Your task to perform on an android device: open sync settings in chrome Image 0: 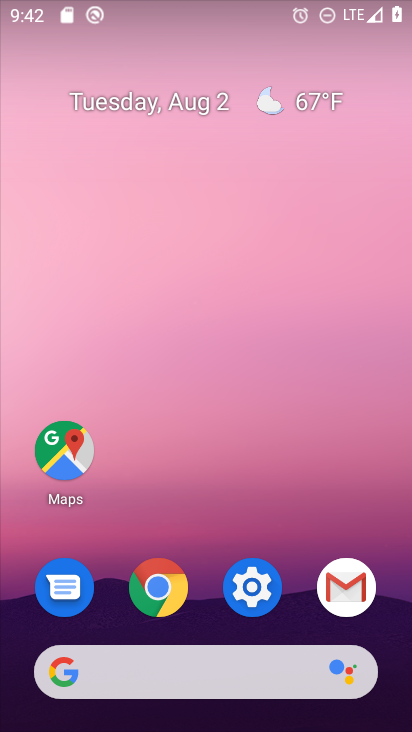
Step 0: press home button
Your task to perform on an android device: open sync settings in chrome Image 1: 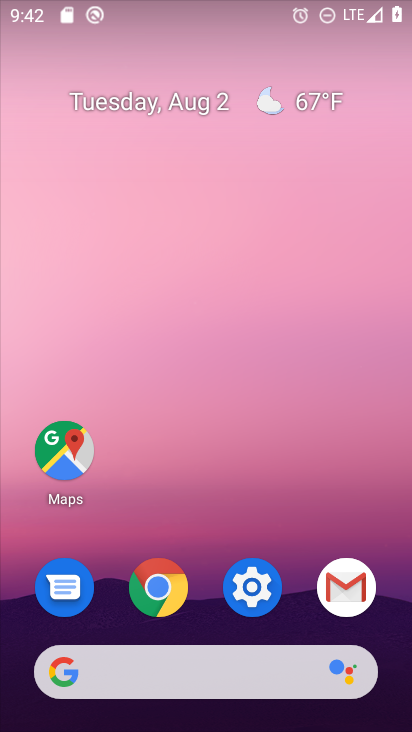
Step 1: click (173, 597)
Your task to perform on an android device: open sync settings in chrome Image 2: 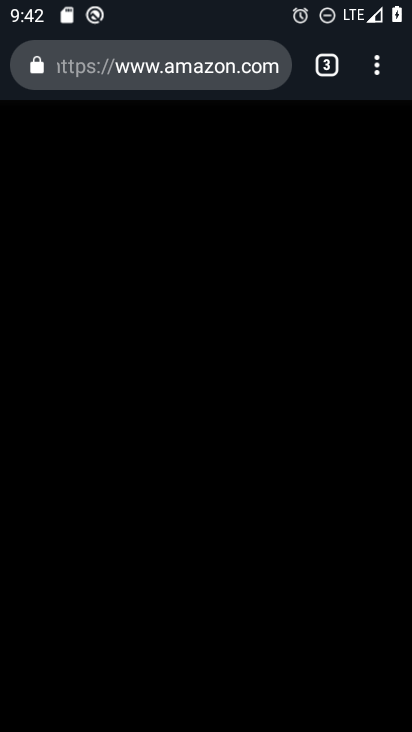
Step 2: click (377, 74)
Your task to perform on an android device: open sync settings in chrome Image 3: 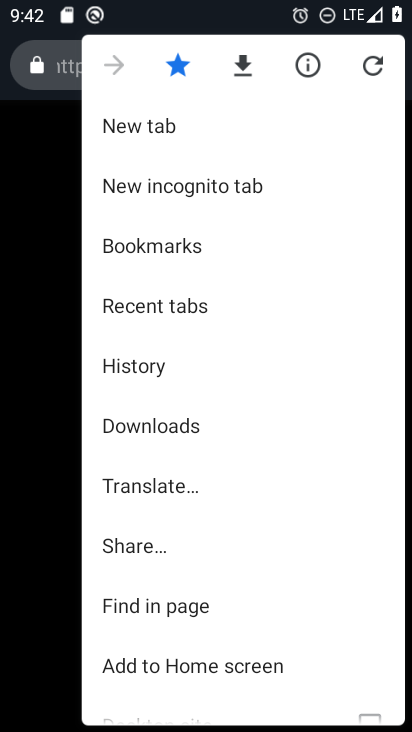
Step 3: drag from (167, 627) to (136, 373)
Your task to perform on an android device: open sync settings in chrome Image 4: 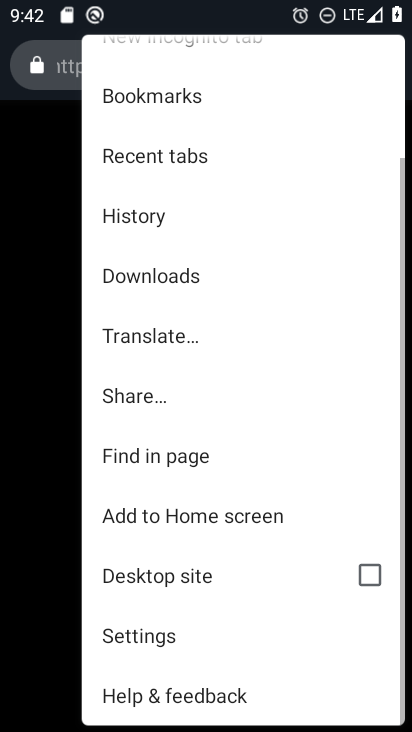
Step 4: click (149, 638)
Your task to perform on an android device: open sync settings in chrome Image 5: 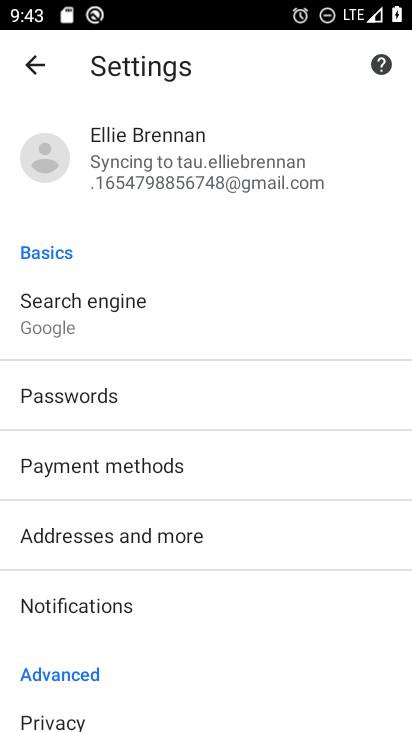
Step 5: drag from (113, 674) to (103, 546)
Your task to perform on an android device: open sync settings in chrome Image 6: 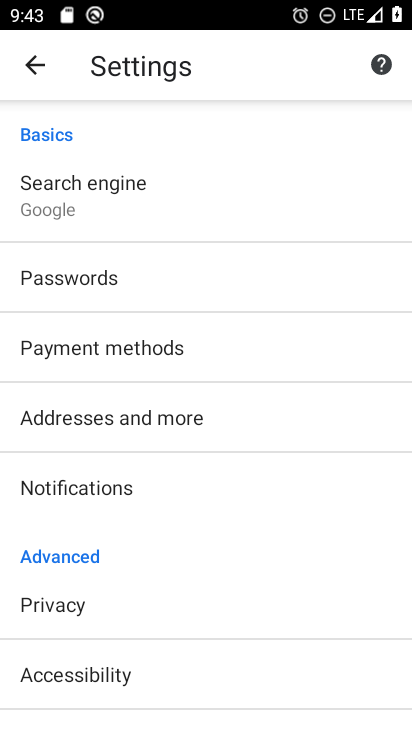
Step 6: drag from (118, 667) to (133, 525)
Your task to perform on an android device: open sync settings in chrome Image 7: 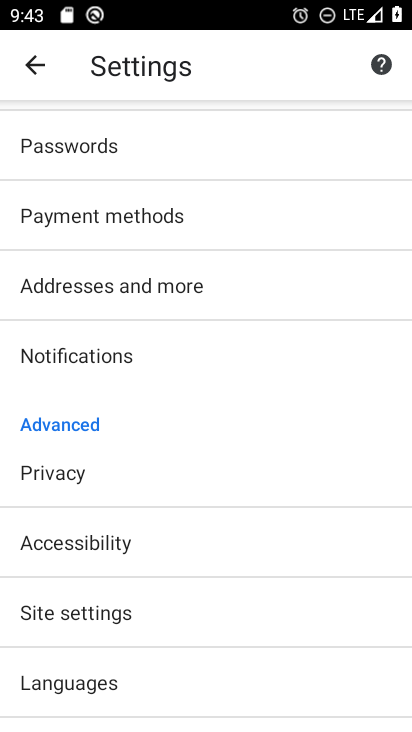
Step 7: click (124, 587)
Your task to perform on an android device: open sync settings in chrome Image 8: 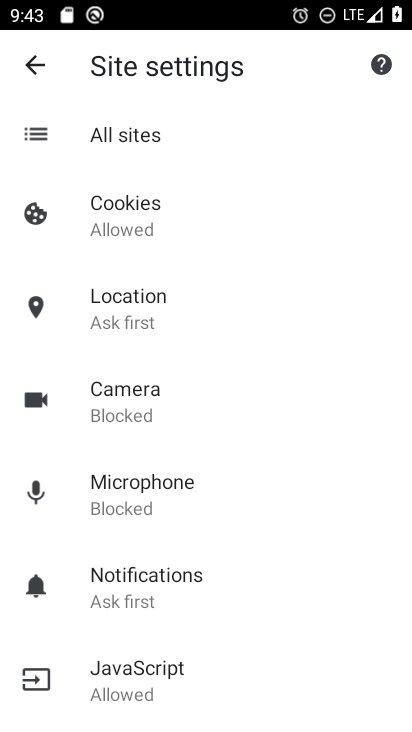
Step 8: drag from (128, 643) to (143, 376)
Your task to perform on an android device: open sync settings in chrome Image 9: 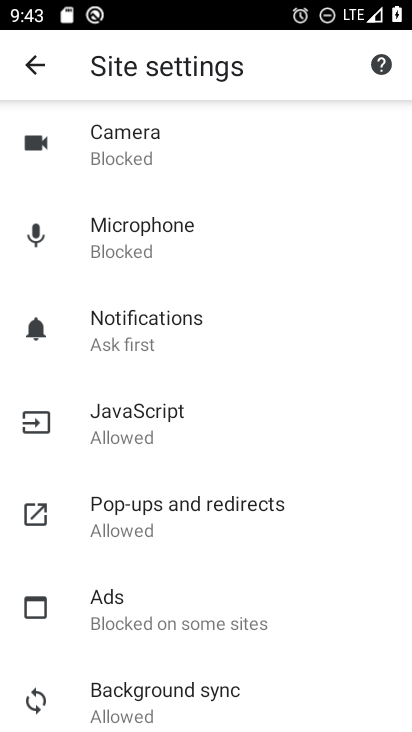
Step 9: click (162, 701)
Your task to perform on an android device: open sync settings in chrome Image 10: 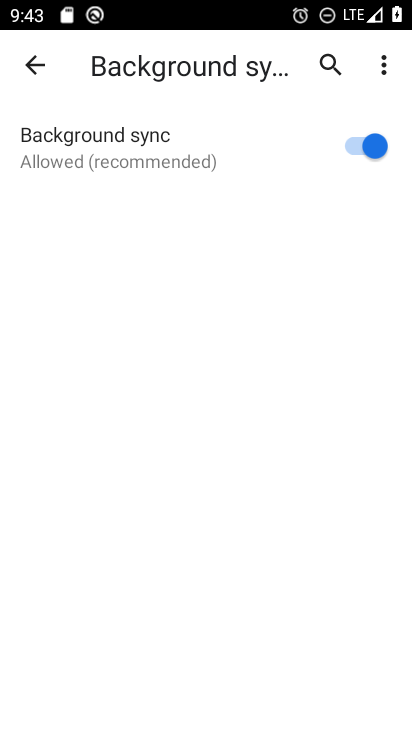
Step 10: task complete